Your task to perform on an android device: Open Google Maps Image 0: 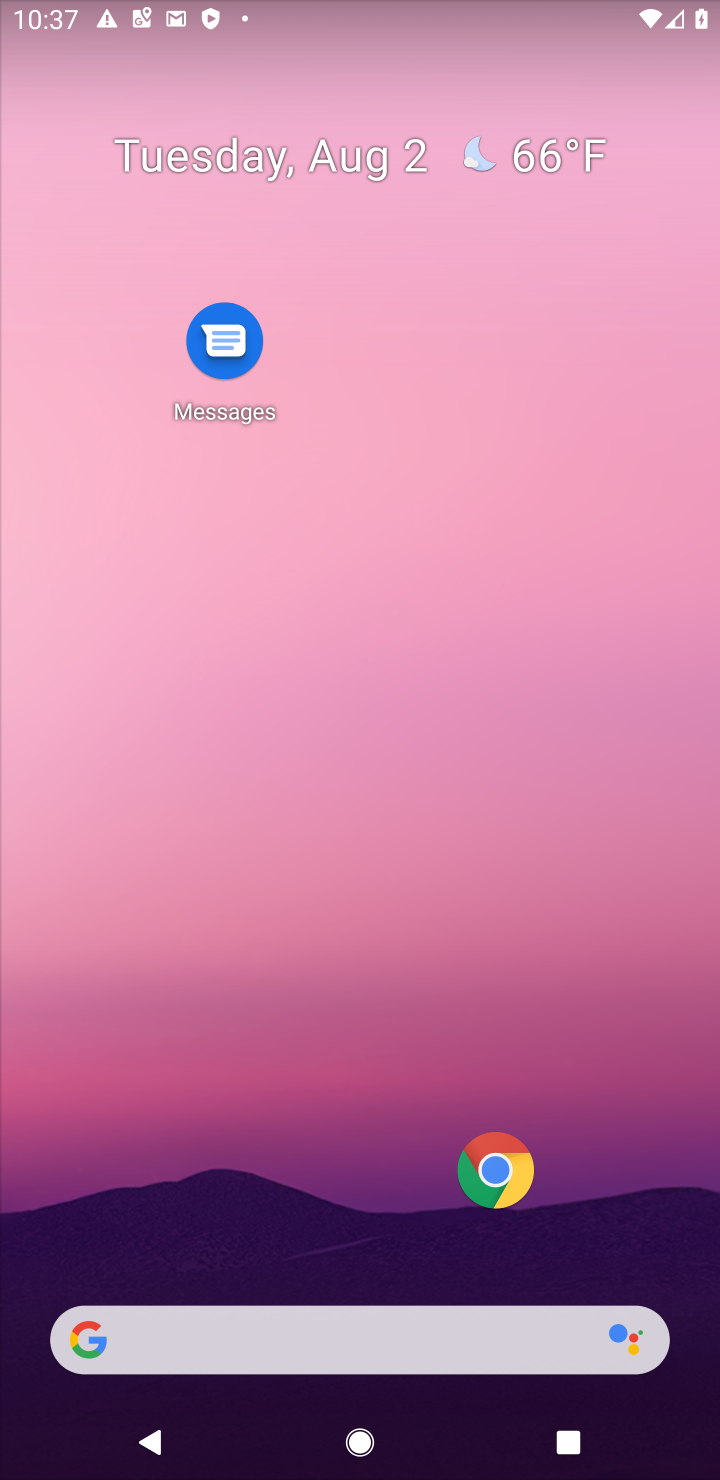
Step 0: drag from (416, 886) to (442, 185)
Your task to perform on an android device: Open Google Maps Image 1: 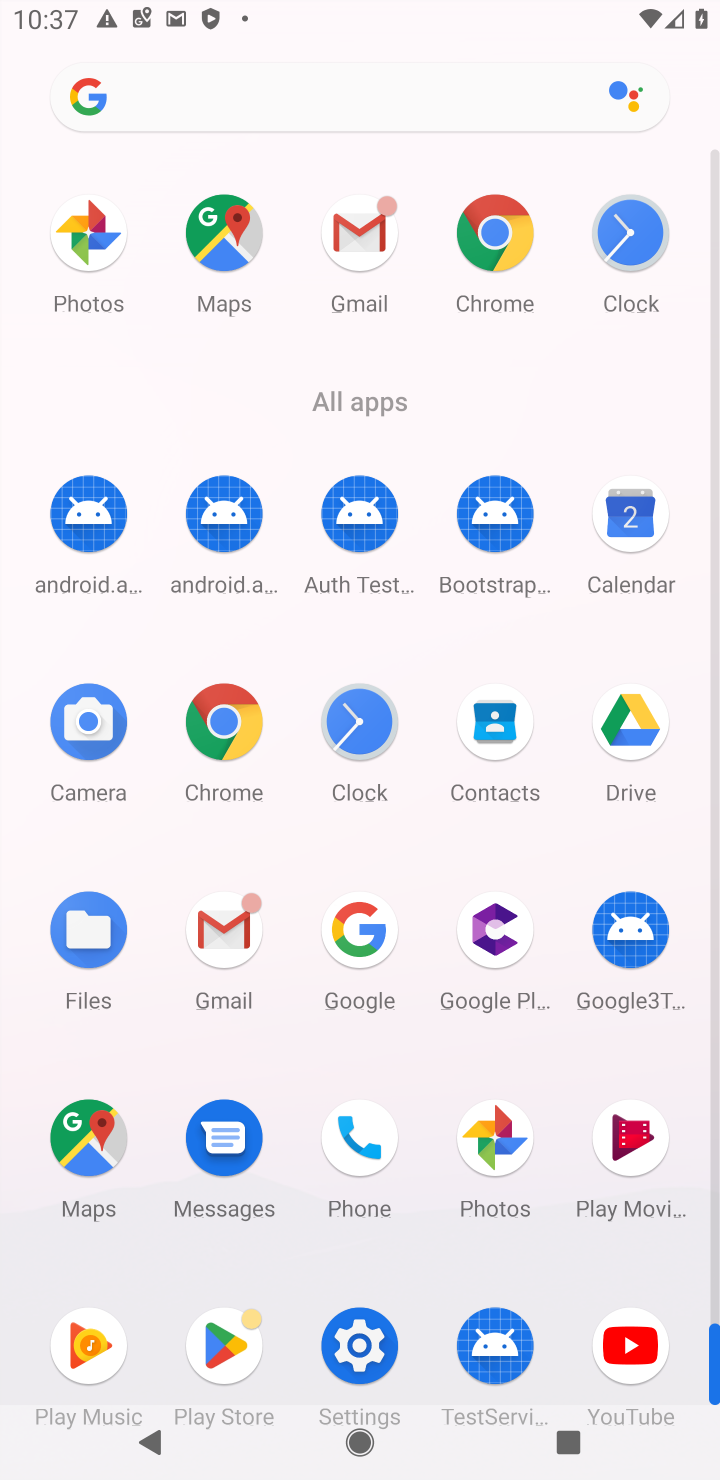
Step 1: click (94, 1145)
Your task to perform on an android device: Open Google Maps Image 2: 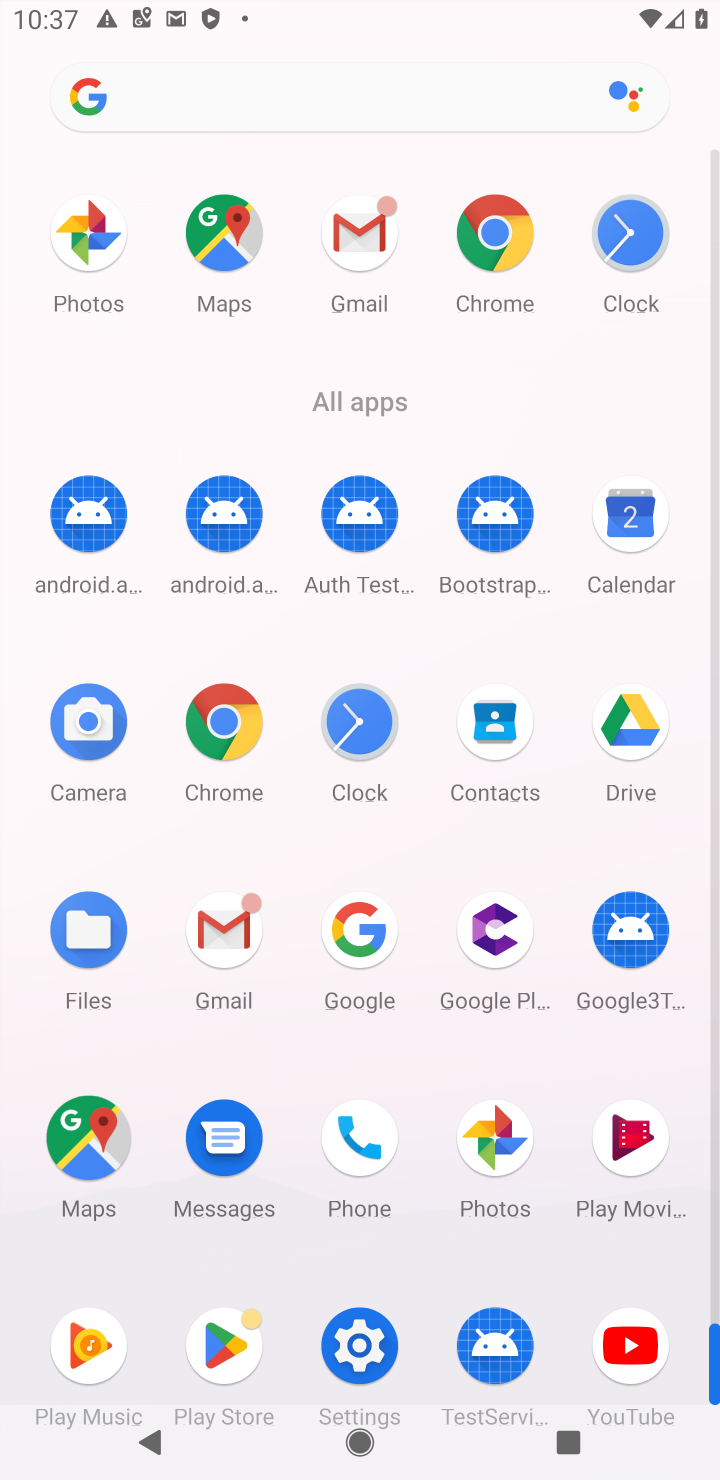
Step 2: click (73, 1135)
Your task to perform on an android device: Open Google Maps Image 3: 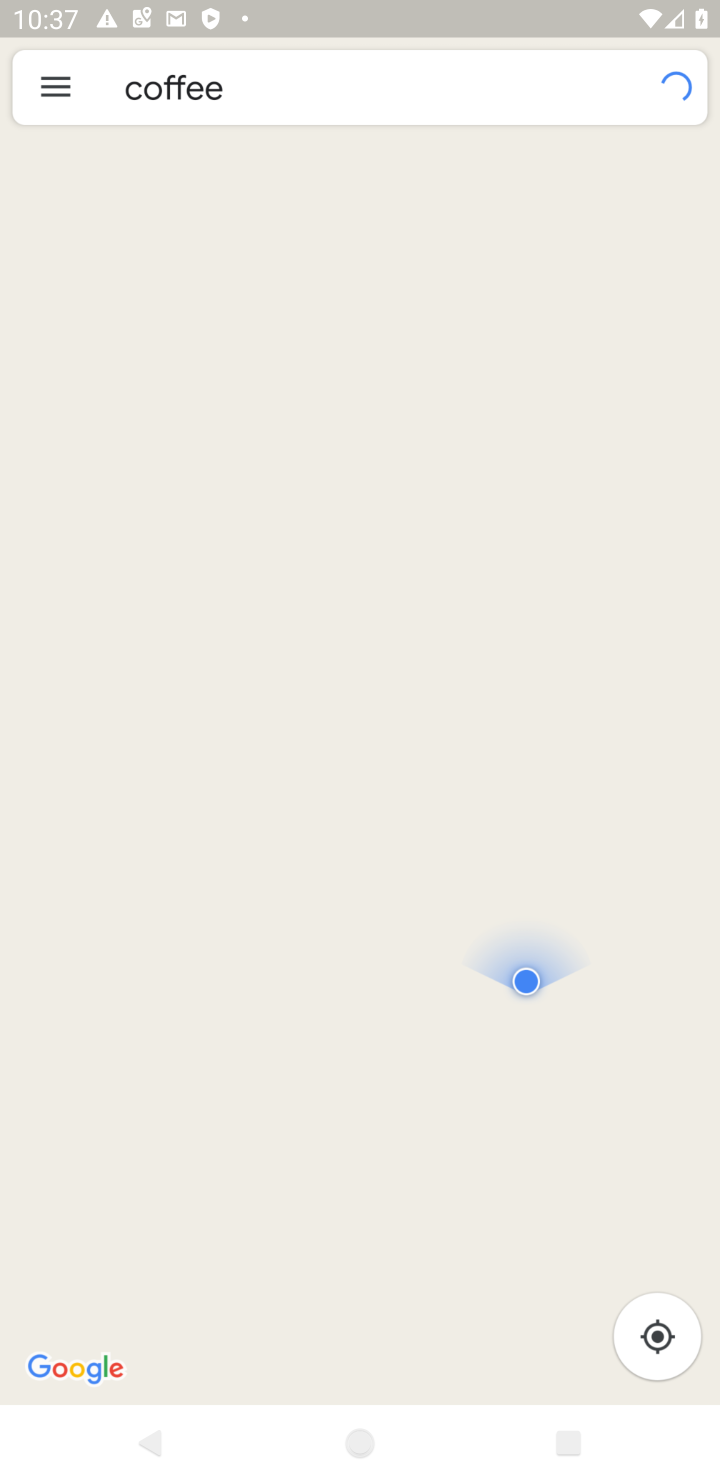
Step 3: click (73, 1135)
Your task to perform on an android device: Open Google Maps Image 4: 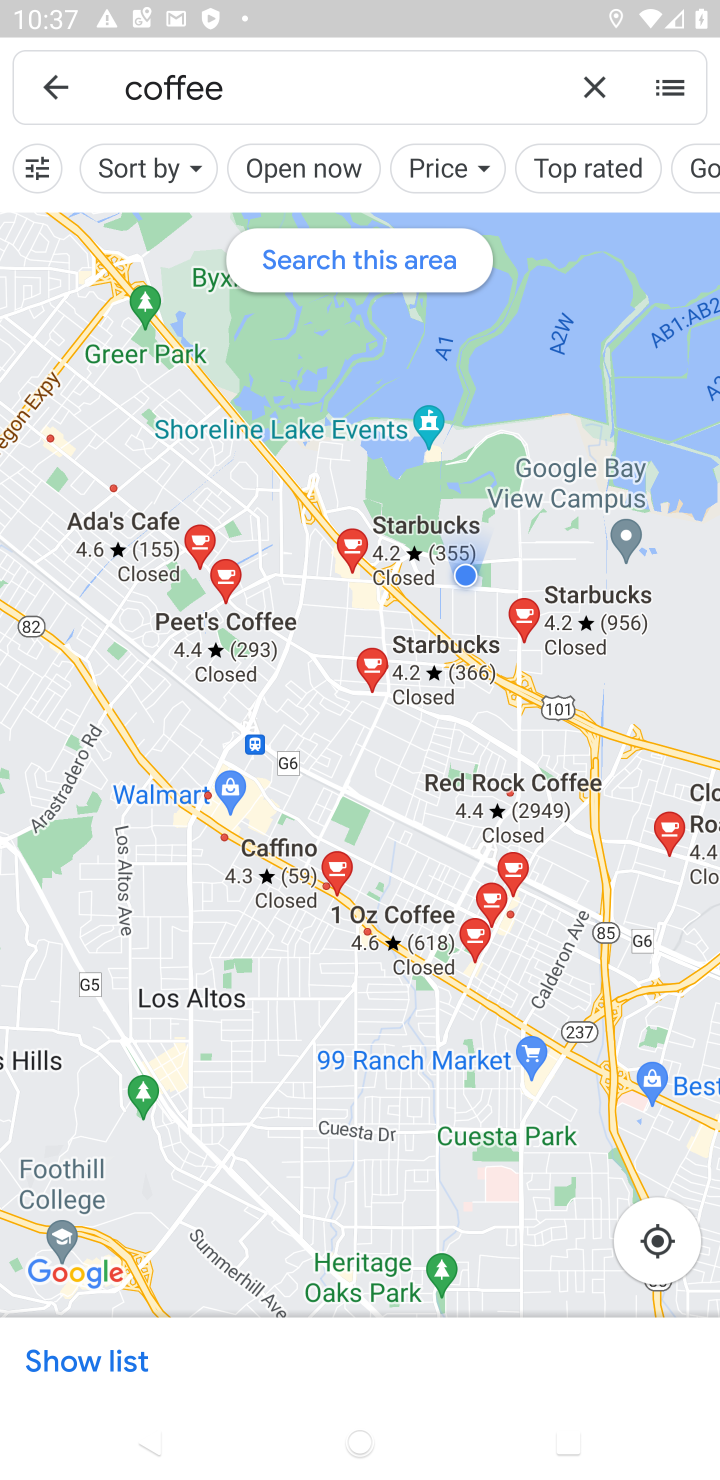
Step 4: task complete